Your task to perform on an android device: make emails show in primary in the gmail app Image 0: 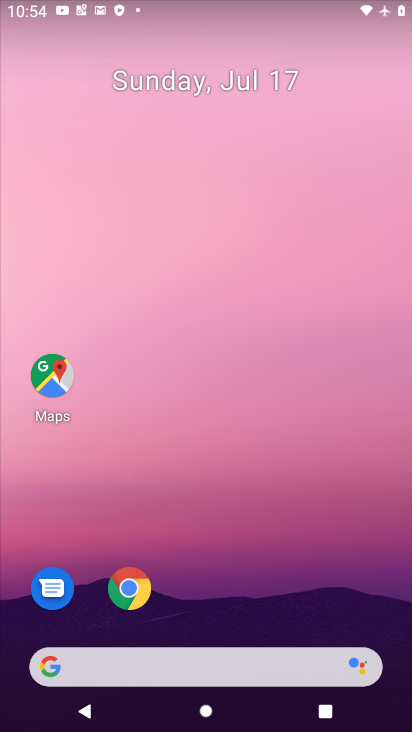
Step 0: press home button
Your task to perform on an android device: make emails show in primary in the gmail app Image 1: 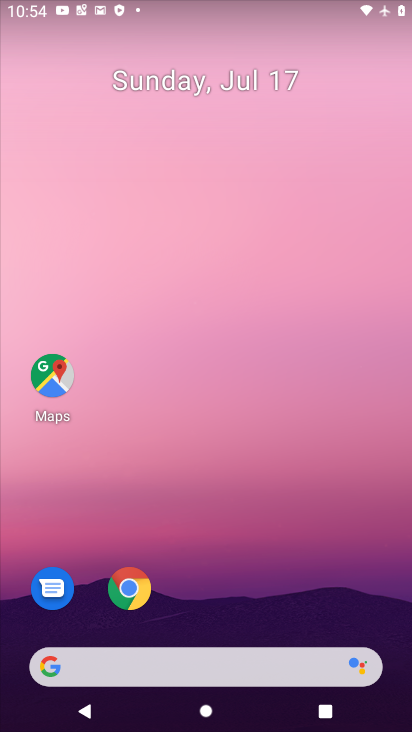
Step 1: drag from (251, 642) to (263, 202)
Your task to perform on an android device: make emails show in primary in the gmail app Image 2: 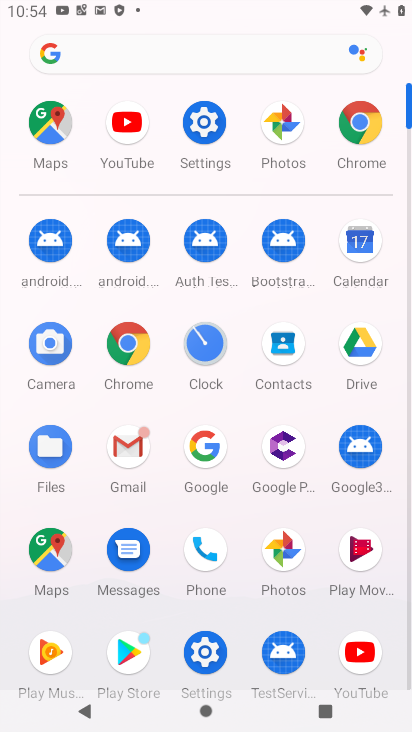
Step 2: click (134, 425)
Your task to perform on an android device: make emails show in primary in the gmail app Image 3: 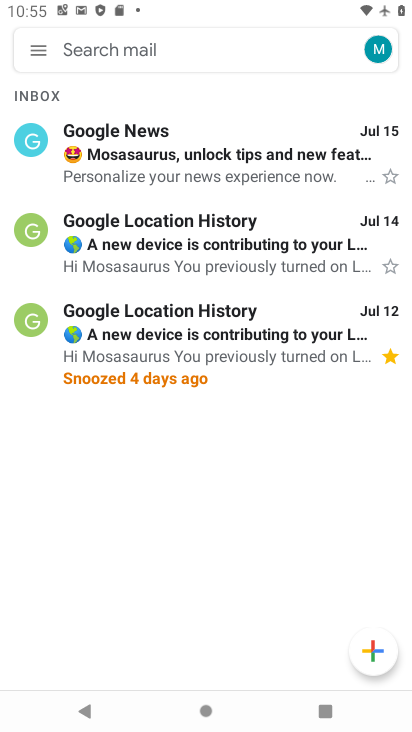
Step 3: click (174, 156)
Your task to perform on an android device: make emails show in primary in the gmail app Image 4: 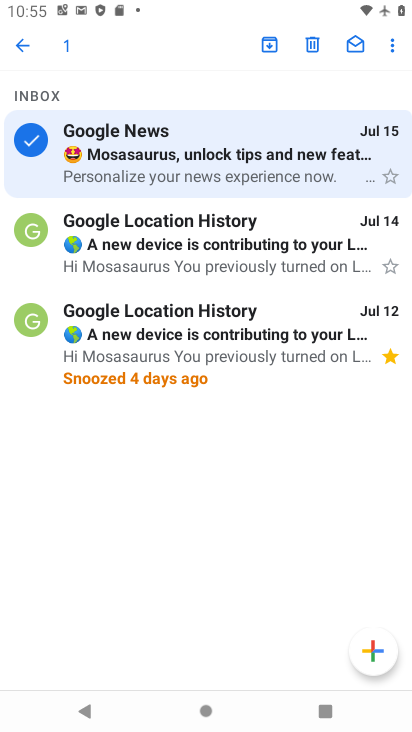
Step 4: click (385, 41)
Your task to perform on an android device: make emails show in primary in the gmail app Image 5: 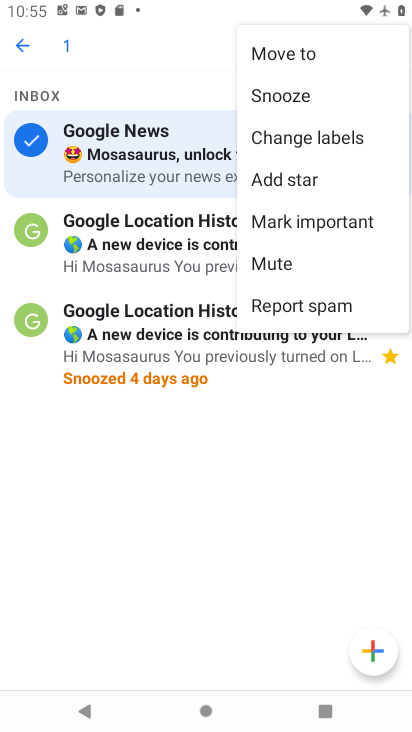
Step 5: click (266, 424)
Your task to perform on an android device: make emails show in primary in the gmail app Image 6: 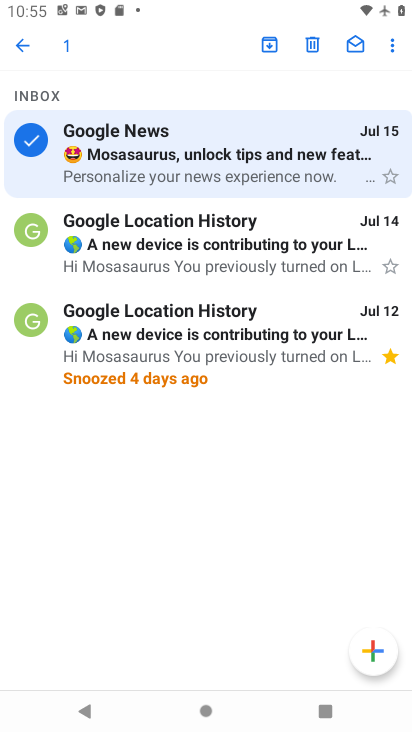
Step 6: click (11, 42)
Your task to perform on an android device: make emails show in primary in the gmail app Image 7: 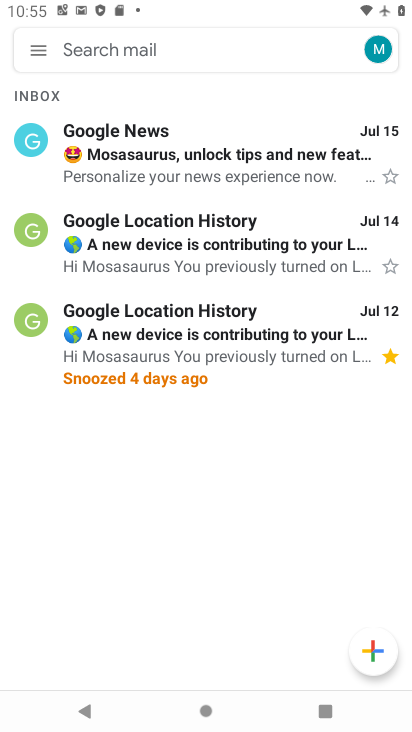
Step 7: click (41, 61)
Your task to perform on an android device: make emails show in primary in the gmail app Image 8: 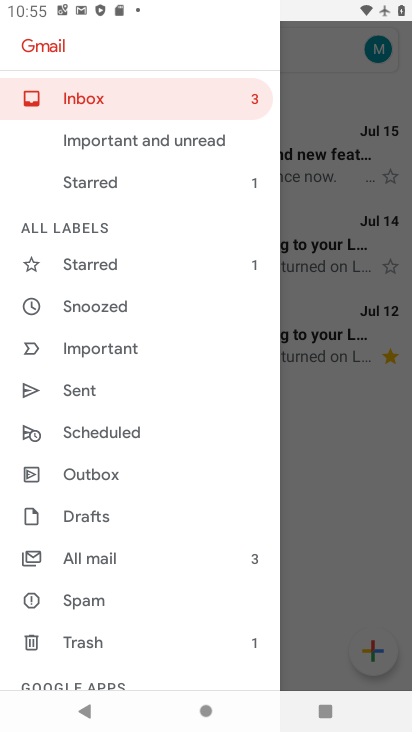
Step 8: task complete